Your task to perform on an android device: check battery use Image 0: 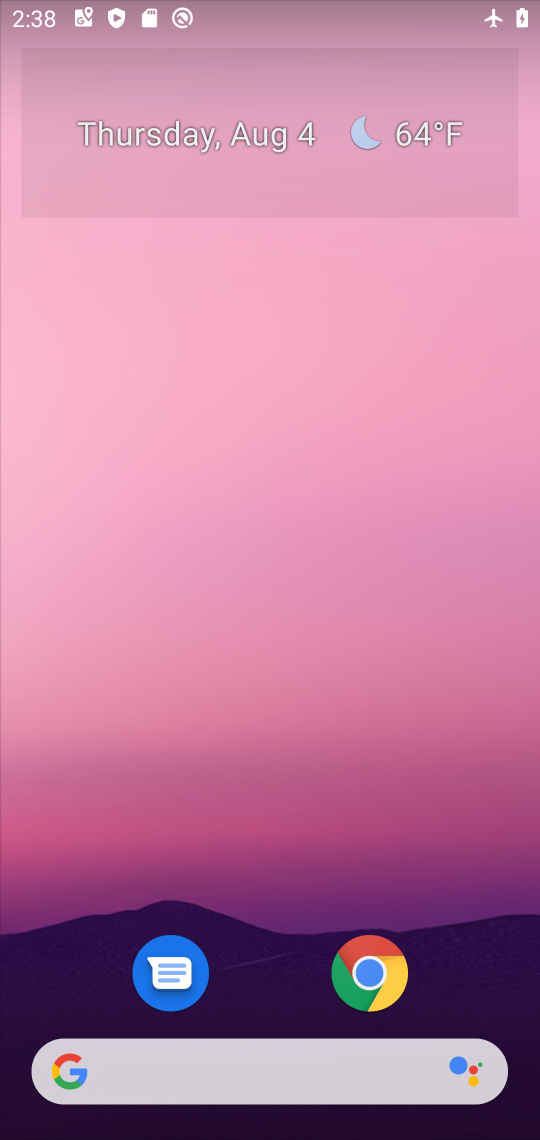
Step 0: drag from (287, 1008) to (241, 58)
Your task to perform on an android device: check battery use Image 1: 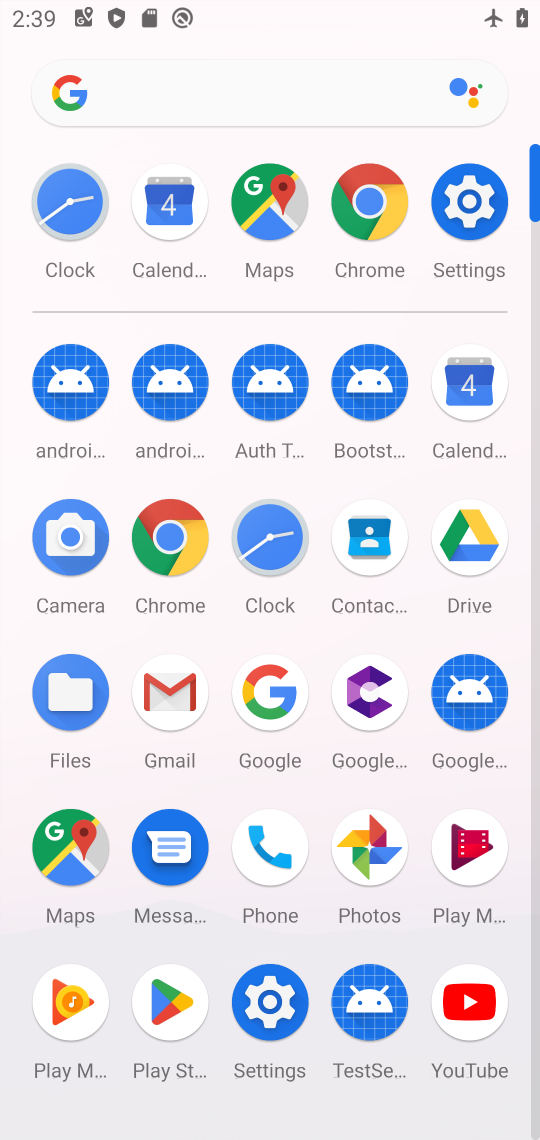
Step 1: click (251, 965)
Your task to perform on an android device: check battery use Image 2: 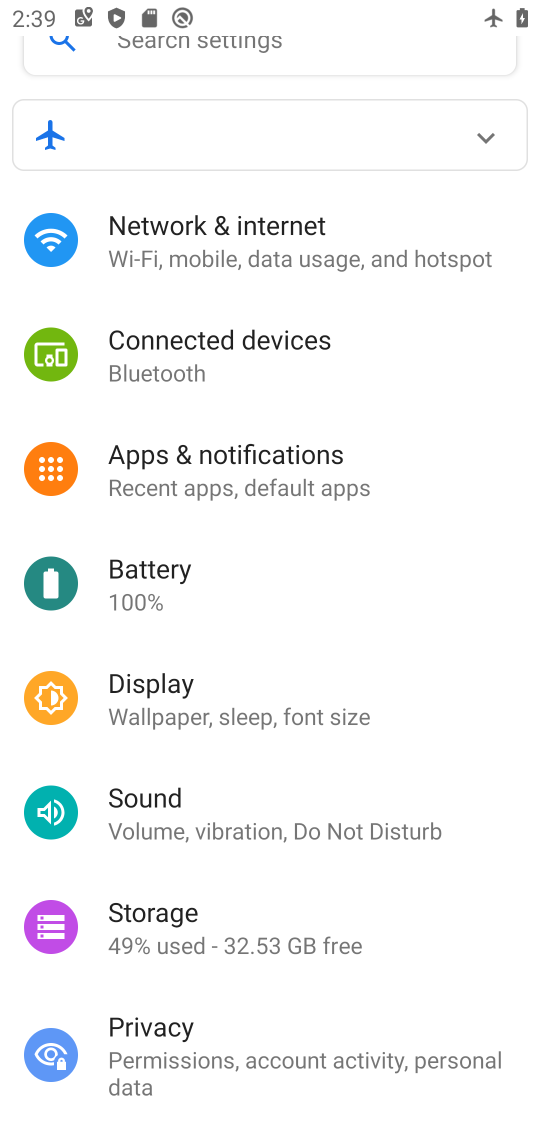
Step 2: click (155, 593)
Your task to perform on an android device: check battery use Image 3: 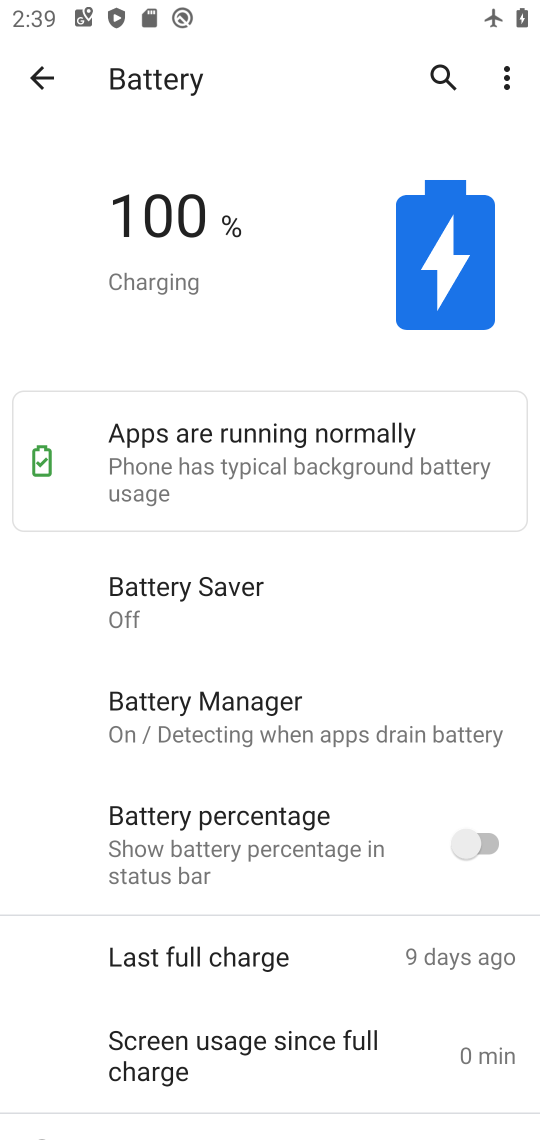
Step 3: task complete